Your task to perform on an android device: Open Google Chrome and click the shortcut for Amazon.com Image 0: 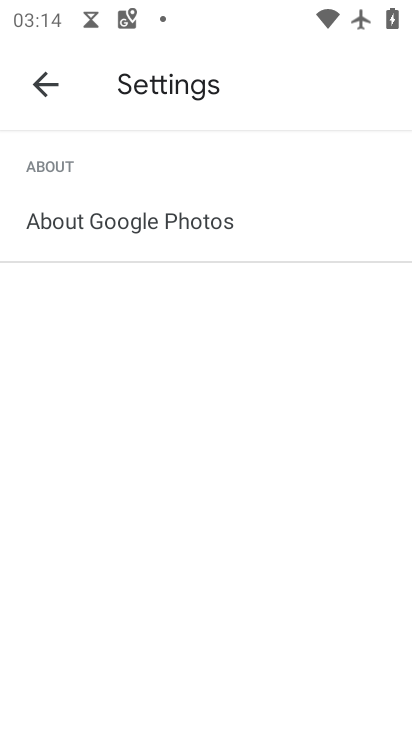
Step 0: press home button
Your task to perform on an android device: Open Google Chrome and click the shortcut for Amazon.com Image 1: 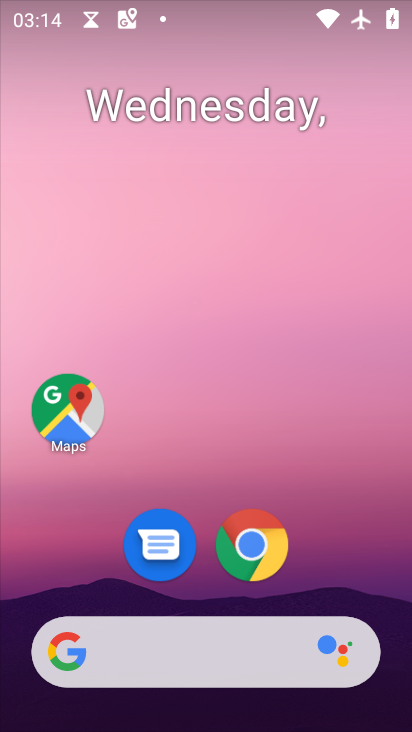
Step 1: click (254, 562)
Your task to perform on an android device: Open Google Chrome and click the shortcut for Amazon.com Image 2: 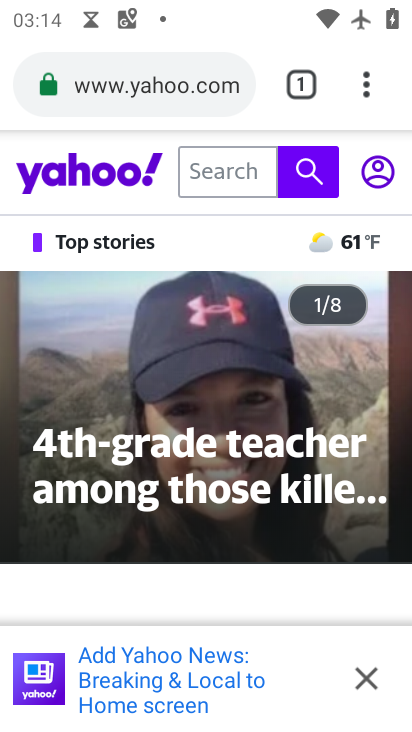
Step 2: drag from (357, 95) to (197, 160)
Your task to perform on an android device: Open Google Chrome and click the shortcut for Amazon.com Image 3: 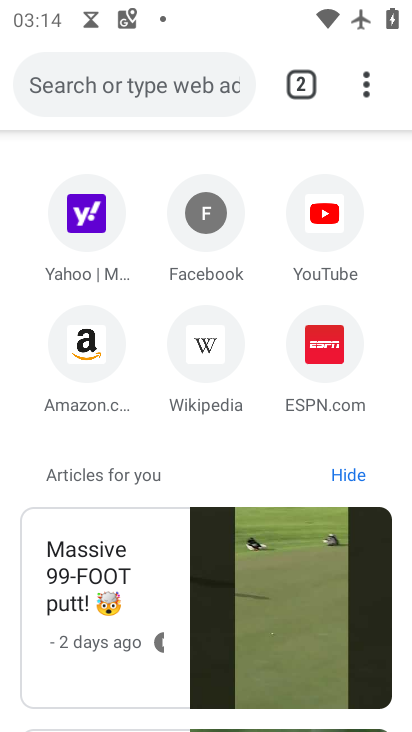
Step 3: click (85, 342)
Your task to perform on an android device: Open Google Chrome and click the shortcut for Amazon.com Image 4: 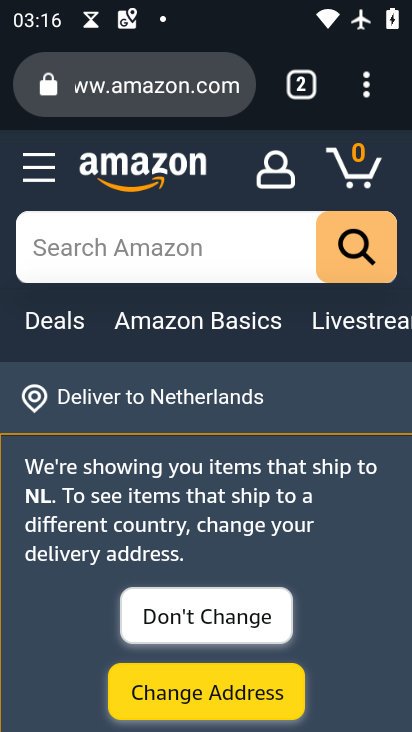
Step 4: task complete